Your task to perform on an android device: What's the weather going to be this weekend? Image 0: 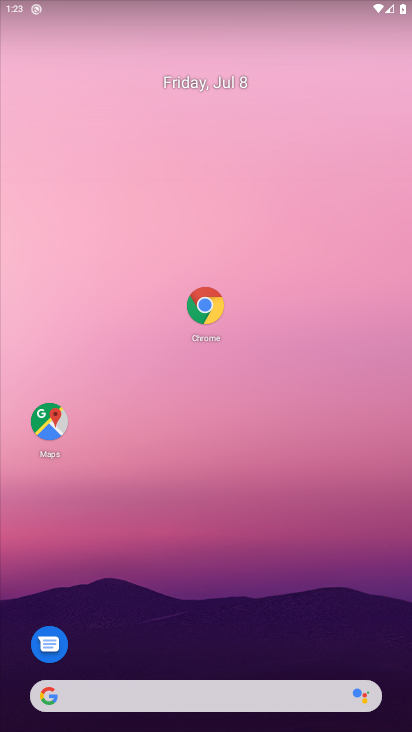
Step 0: drag from (233, 513) to (233, 307)
Your task to perform on an android device: What's the weather going to be this weekend? Image 1: 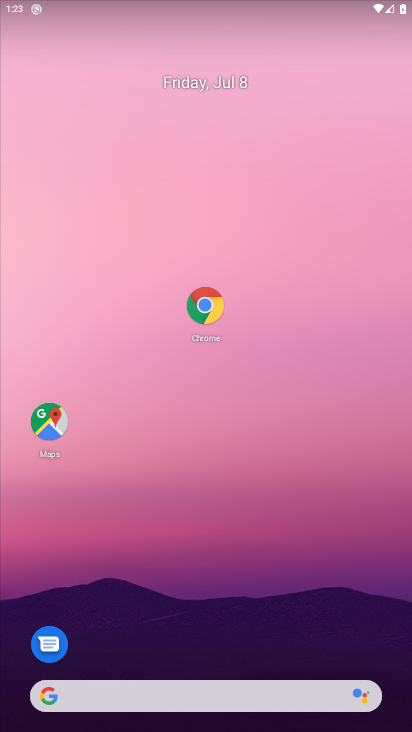
Step 1: drag from (192, 655) to (179, 234)
Your task to perform on an android device: What's the weather going to be this weekend? Image 2: 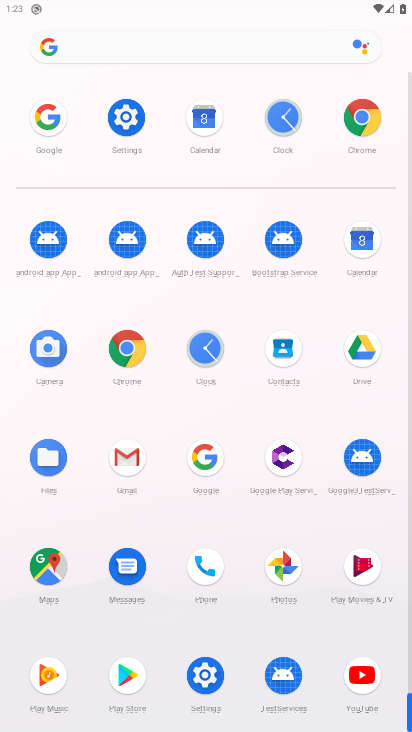
Step 2: click (200, 461)
Your task to perform on an android device: What's the weather going to be this weekend? Image 3: 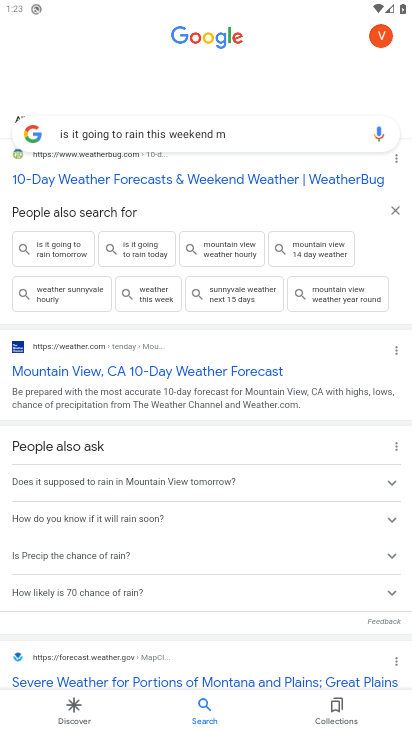
Step 3: click (233, 133)
Your task to perform on an android device: What's the weather going to be this weekend? Image 4: 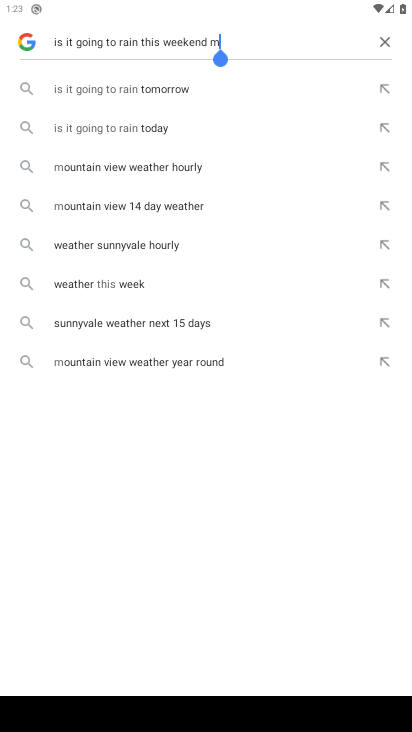
Step 4: click (383, 43)
Your task to perform on an android device: What's the weather going to be this weekend? Image 5: 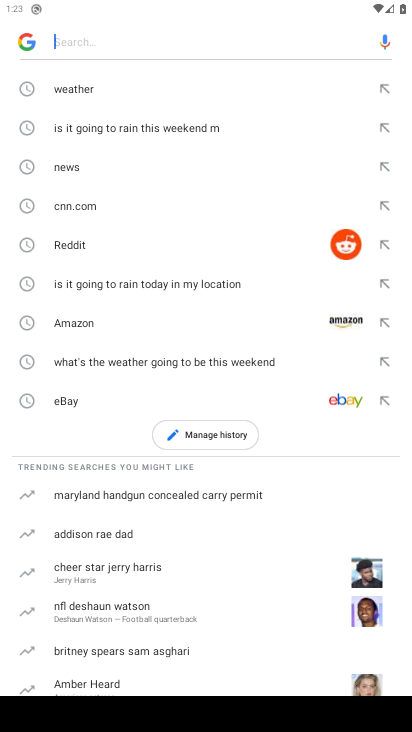
Step 5: click (149, 364)
Your task to perform on an android device: What's the weather going to be this weekend? Image 6: 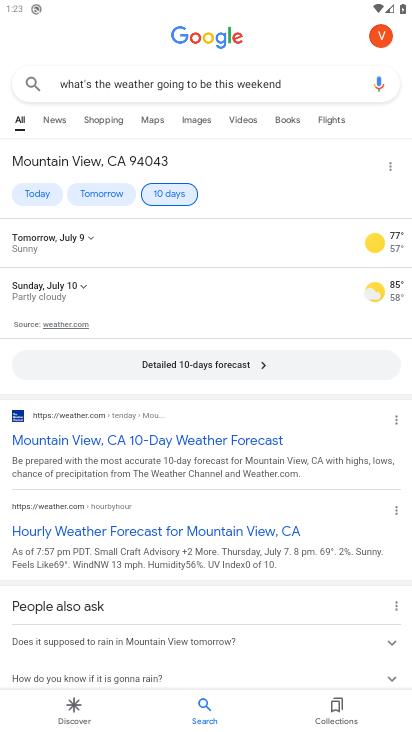
Step 6: click (195, 362)
Your task to perform on an android device: What's the weather going to be this weekend? Image 7: 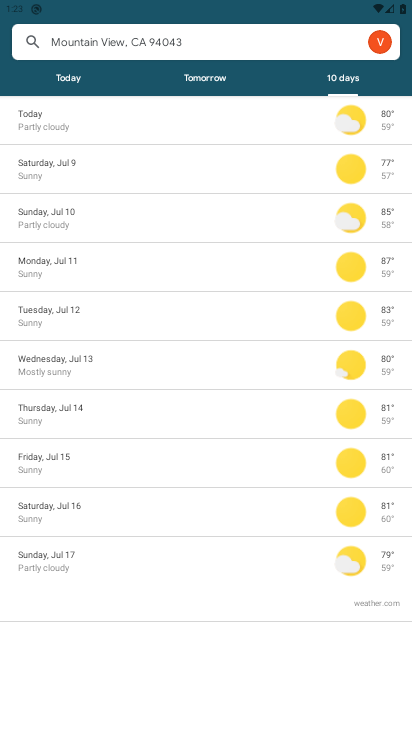
Step 7: task complete